Your task to perform on an android device: Open calendar and show me the second week of next month Image 0: 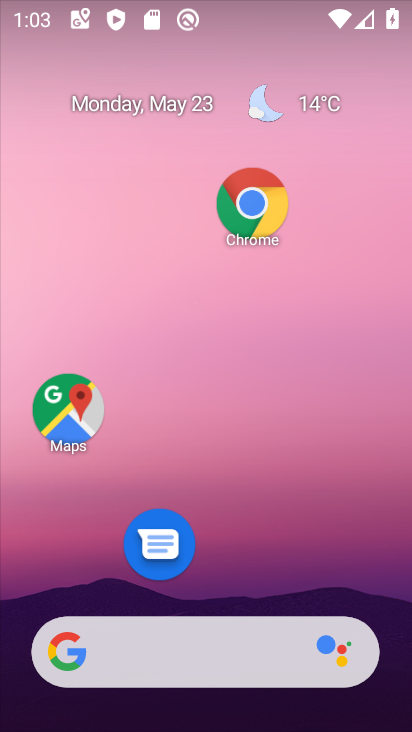
Step 0: drag from (251, 547) to (264, 163)
Your task to perform on an android device: Open calendar and show me the second week of next month Image 1: 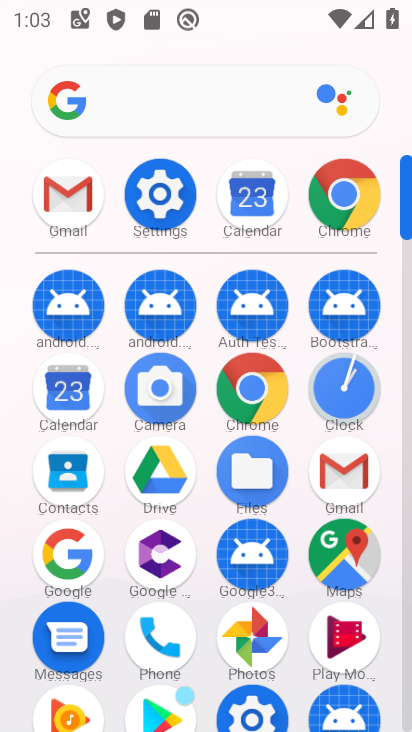
Step 1: click (86, 395)
Your task to perform on an android device: Open calendar and show me the second week of next month Image 2: 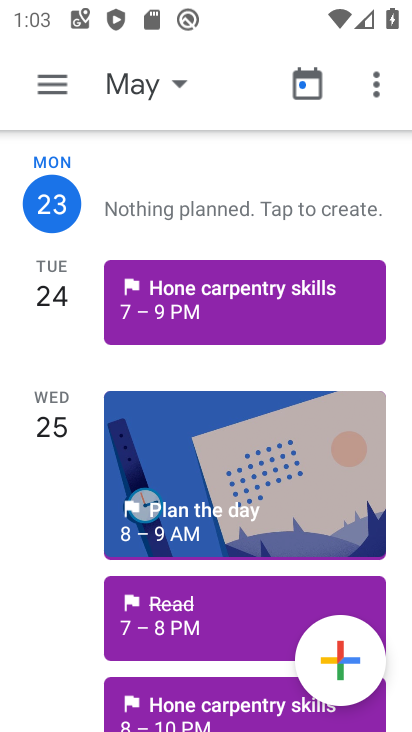
Step 2: click (148, 91)
Your task to perform on an android device: Open calendar and show me the second week of next month Image 3: 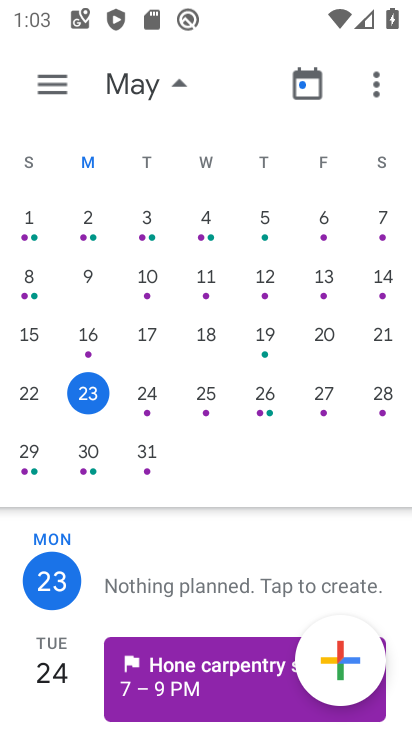
Step 3: drag from (370, 328) to (0, 341)
Your task to perform on an android device: Open calendar and show me the second week of next month Image 4: 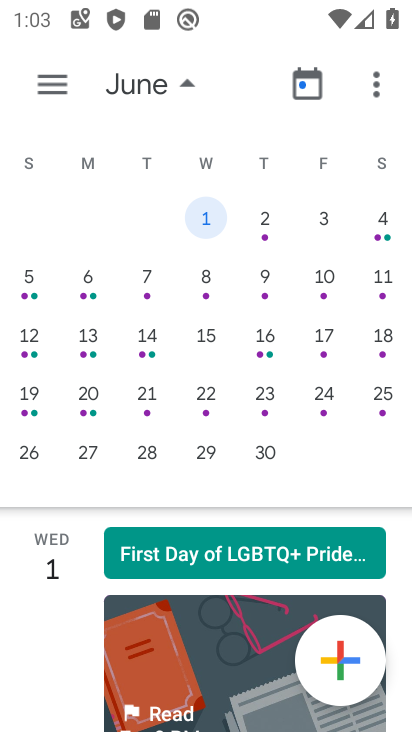
Step 4: click (30, 353)
Your task to perform on an android device: Open calendar and show me the second week of next month Image 5: 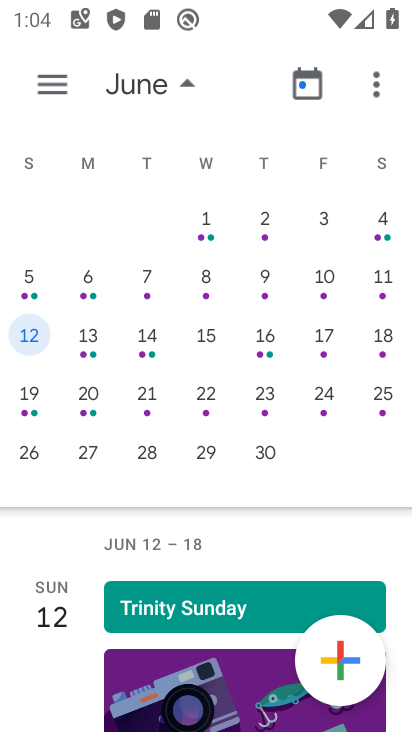
Step 5: click (37, 73)
Your task to perform on an android device: Open calendar and show me the second week of next month Image 6: 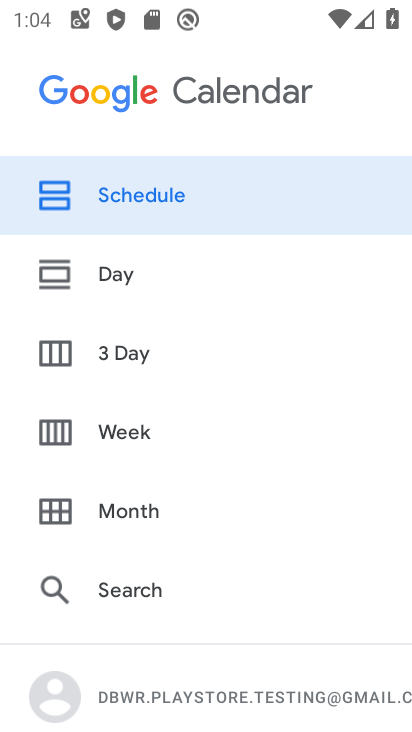
Step 6: click (120, 429)
Your task to perform on an android device: Open calendar and show me the second week of next month Image 7: 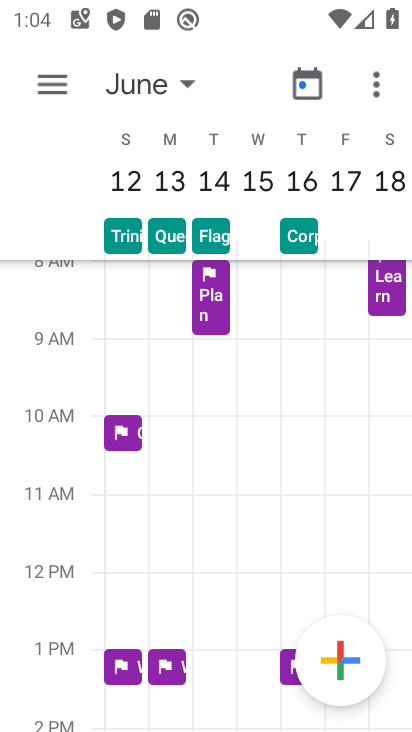
Step 7: task complete